Your task to perform on an android device: Open accessibility settings Image 0: 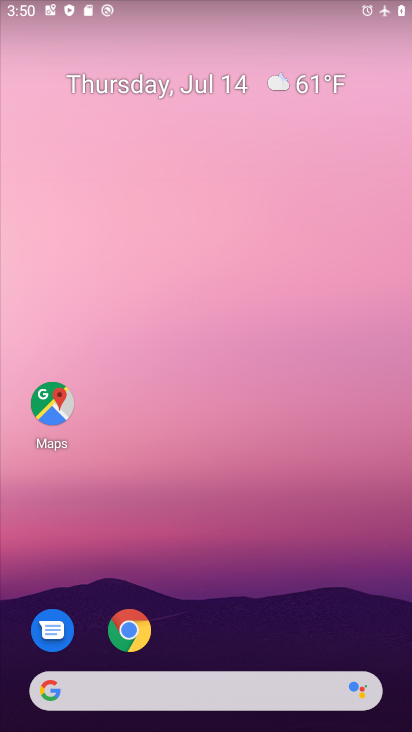
Step 0: drag from (330, 618) to (237, 14)
Your task to perform on an android device: Open accessibility settings Image 1: 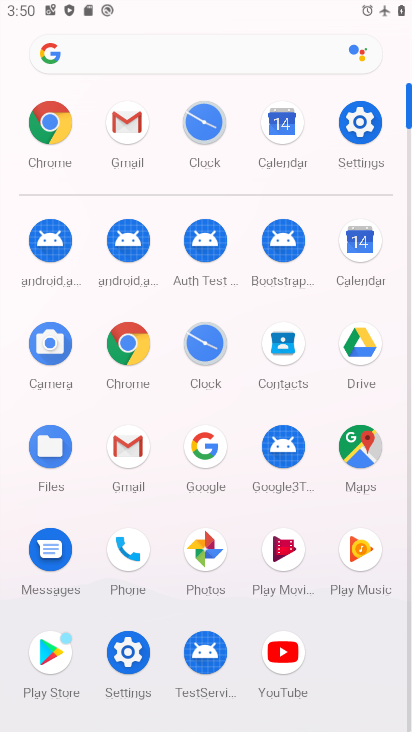
Step 1: click (117, 665)
Your task to perform on an android device: Open accessibility settings Image 2: 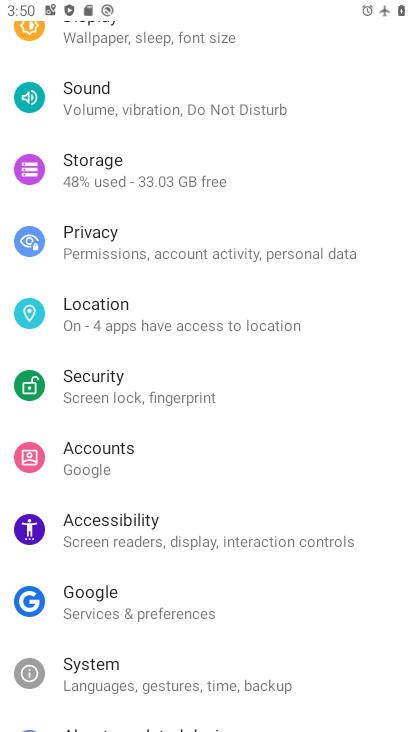
Step 2: click (173, 523)
Your task to perform on an android device: Open accessibility settings Image 3: 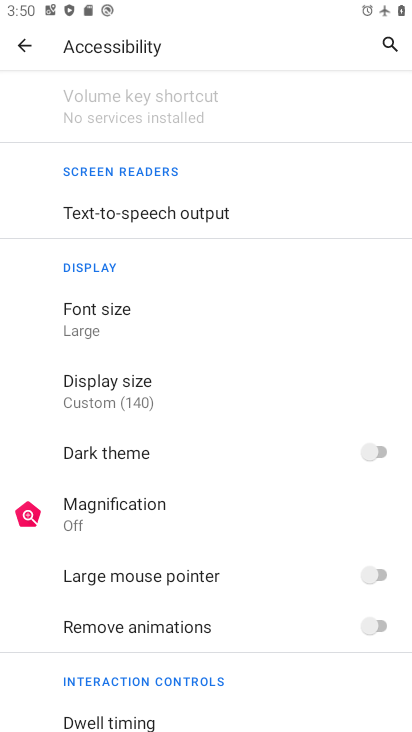
Step 3: task complete